Your task to perform on an android device: Turn on the flashlight Image 0: 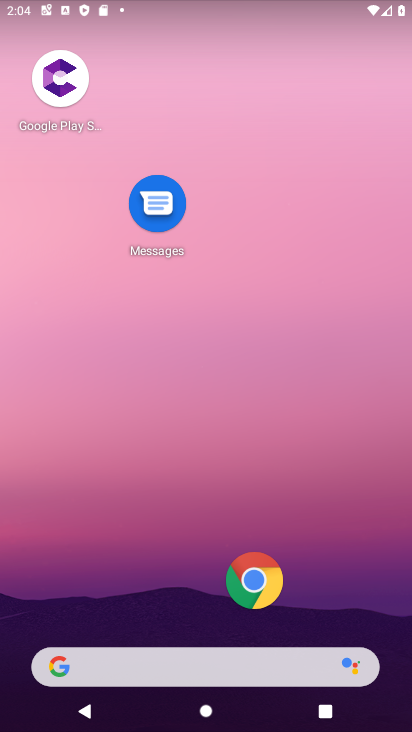
Step 0: drag from (181, 593) to (225, 183)
Your task to perform on an android device: Turn on the flashlight Image 1: 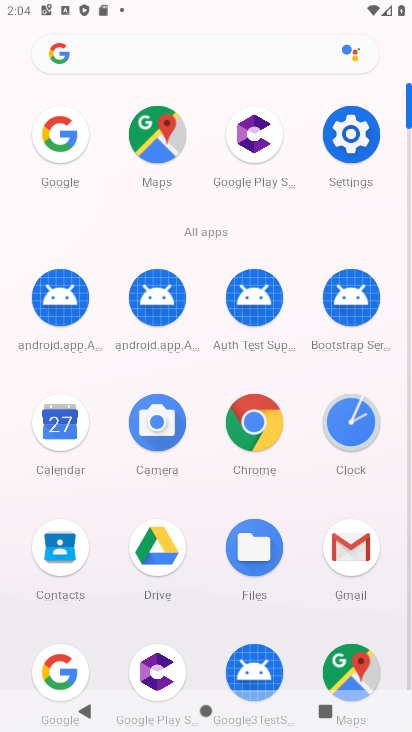
Step 1: click (351, 105)
Your task to perform on an android device: Turn on the flashlight Image 2: 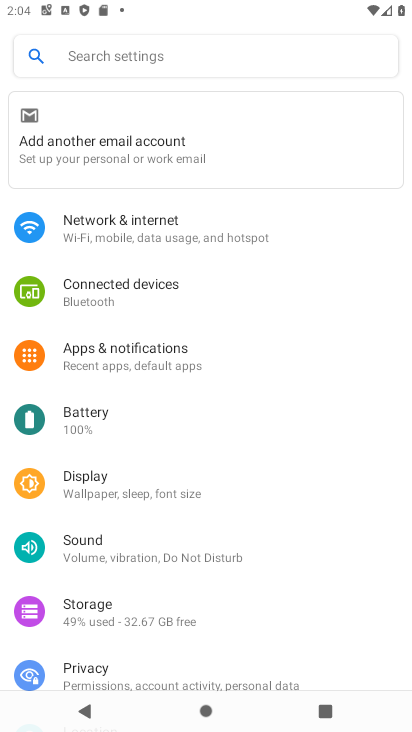
Step 2: task complete